Your task to perform on an android device: turn on javascript in the chrome app Image 0: 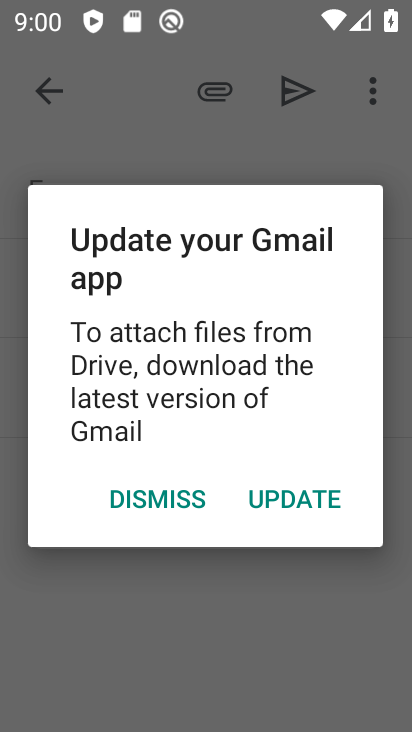
Step 0: press home button
Your task to perform on an android device: turn on javascript in the chrome app Image 1: 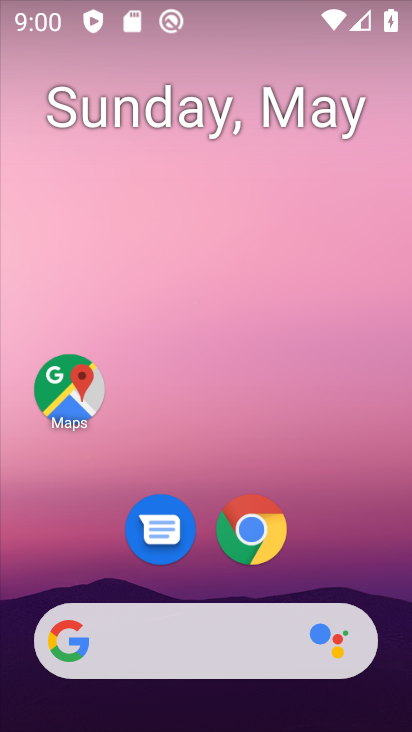
Step 1: click (254, 532)
Your task to perform on an android device: turn on javascript in the chrome app Image 2: 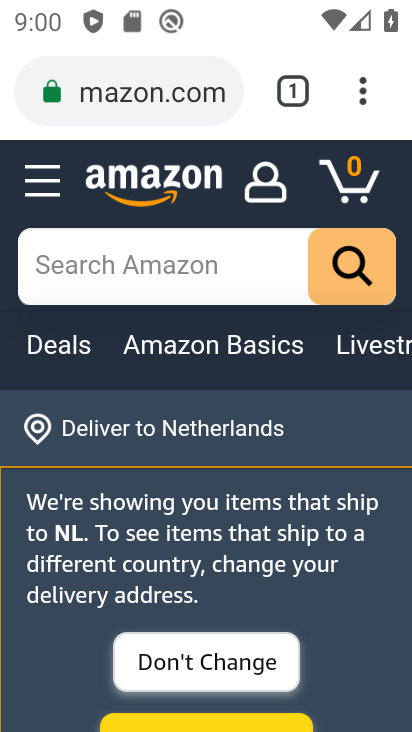
Step 2: click (355, 97)
Your task to perform on an android device: turn on javascript in the chrome app Image 3: 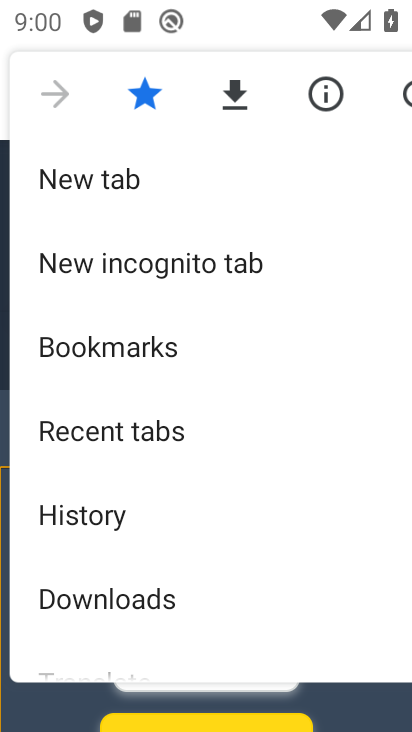
Step 3: drag from (260, 610) to (330, 112)
Your task to perform on an android device: turn on javascript in the chrome app Image 4: 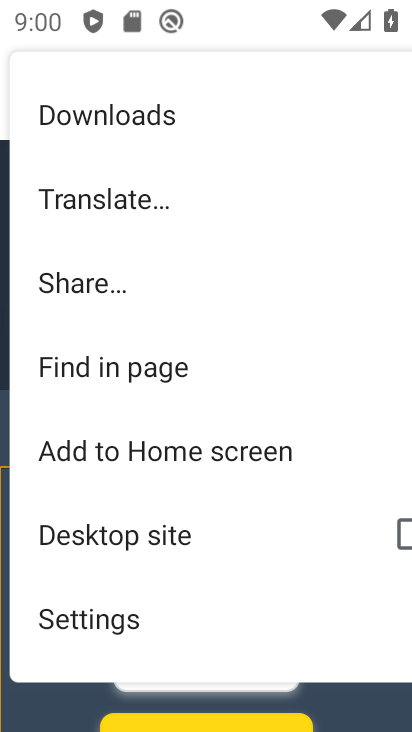
Step 4: click (141, 617)
Your task to perform on an android device: turn on javascript in the chrome app Image 5: 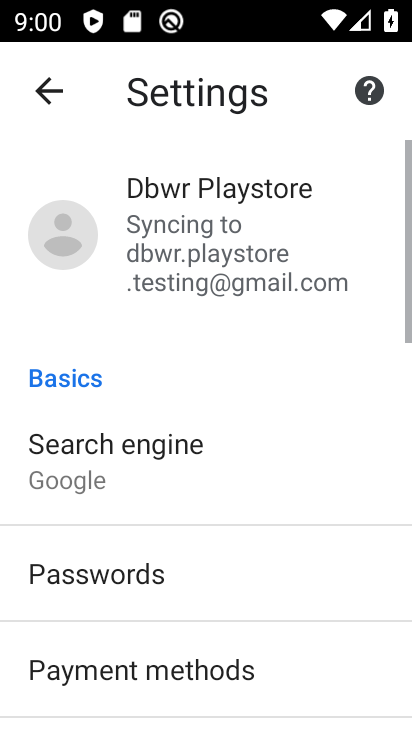
Step 5: drag from (183, 519) to (237, 120)
Your task to perform on an android device: turn on javascript in the chrome app Image 6: 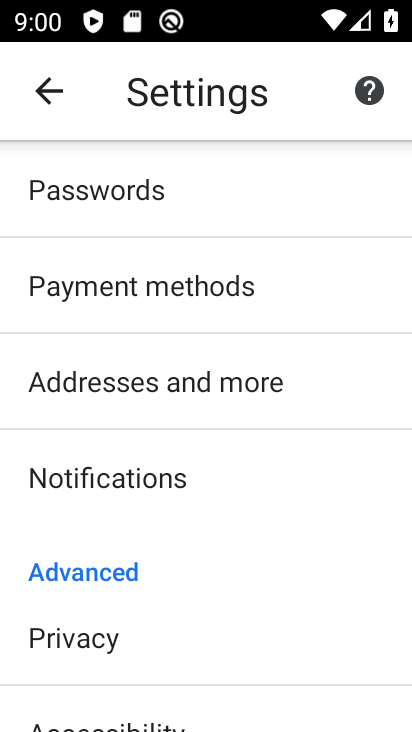
Step 6: drag from (227, 630) to (236, 267)
Your task to perform on an android device: turn on javascript in the chrome app Image 7: 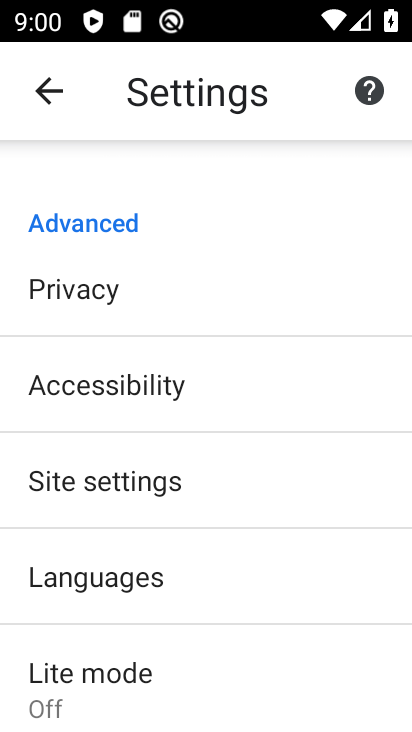
Step 7: click (157, 498)
Your task to perform on an android device: turn on javascript in the chrome app Image 8: 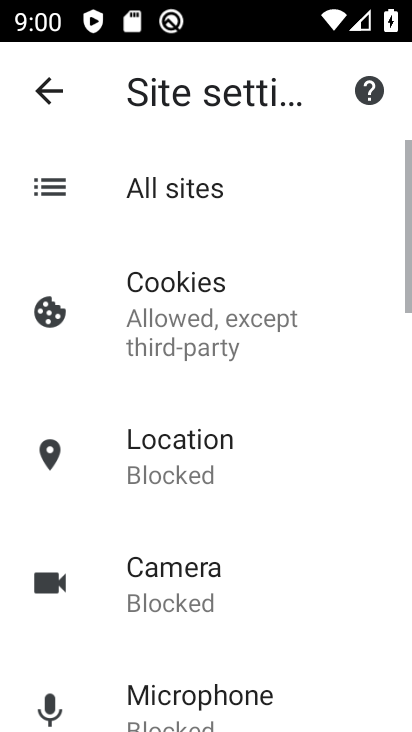
Step 8: drag from (285, 602) to (274, 183)
Your task to perform on an android device: turn on javascript in the chrome app Image 9: 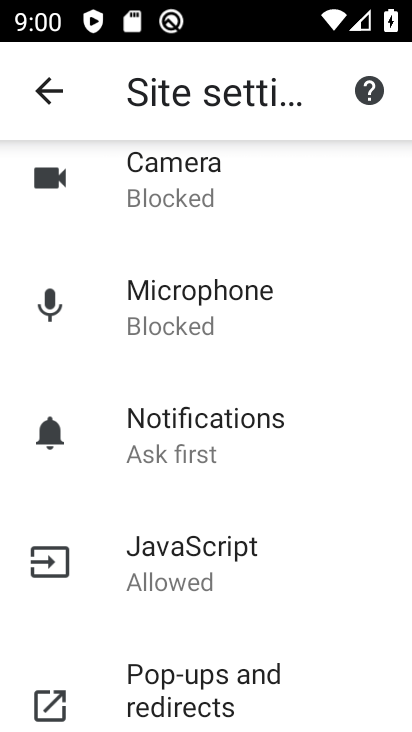
Step 9: click (168, 570)
Your task to perform on an android device: turn on javascript in the chrome app Image 10: 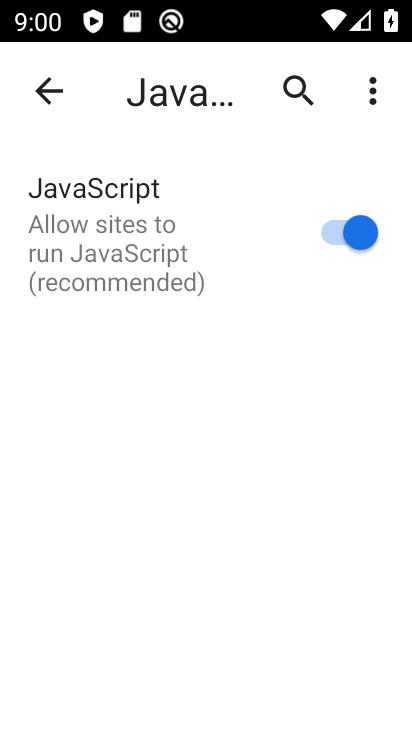
Step 10: task complete